Your task to perform on an android device: change alarm snooze length Image 0: 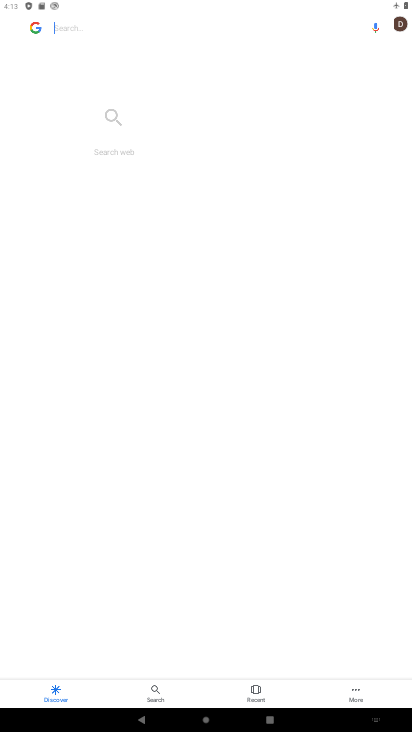
Step 0: press home button
Your task to perform on an android device: change alarm snooze length Image 1: 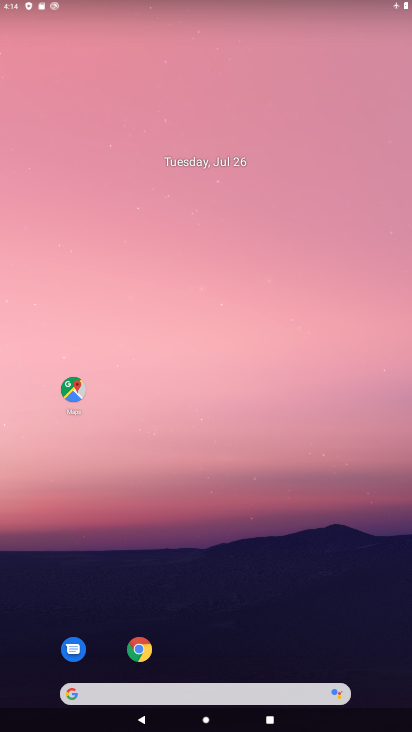
Step 1: drag from (215, 668) to (218, 171)
Your task to perform on an android device: change alarm snooze length Image 2: 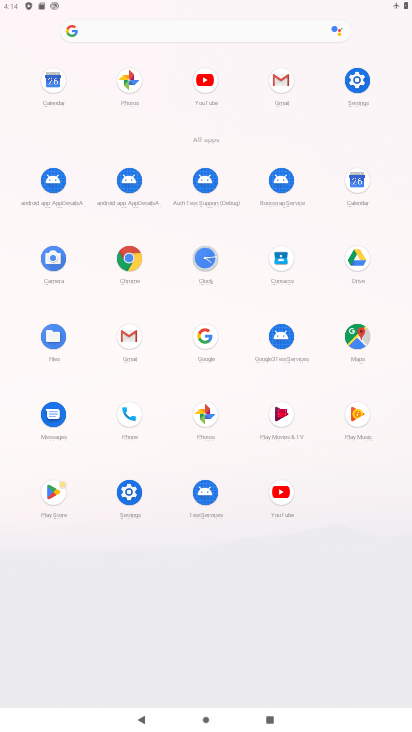
Step 2: click (213, 259)
Your task to perform on an android device: change alarm snooze length Image 3: 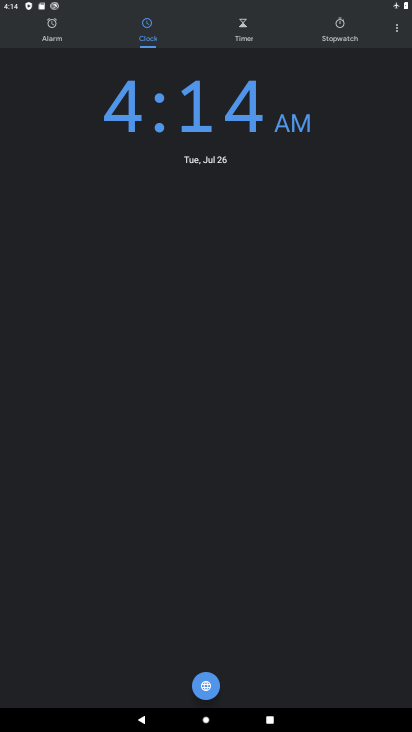
Step 3: click (399, 32)
Your task to perform on an android device: change alarm snooze length Image 4: 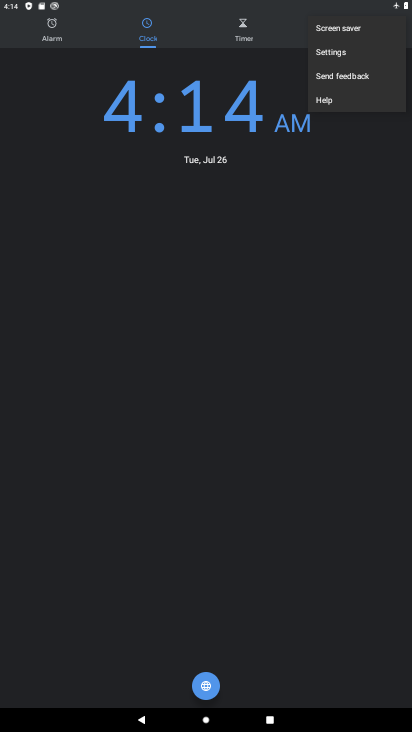
Step 4: click (352, 59)
Your task to perform on an android device: change alarm snooze length Image 5: 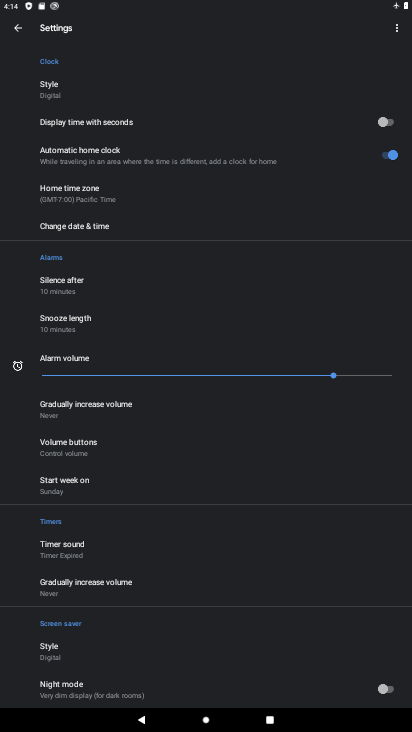
Step 5: click (54, 334)
Your task to perform on an android device: change alarm snooze length Image 6: 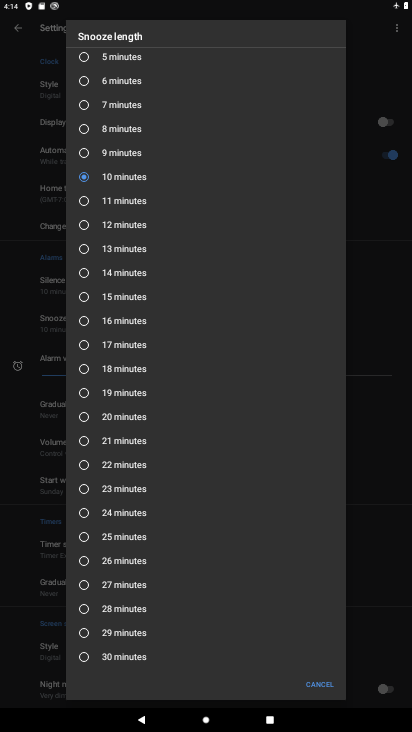
Step 6: click (139, 328)
Your task to perform on an android device: change alarm snooze length Image 7: 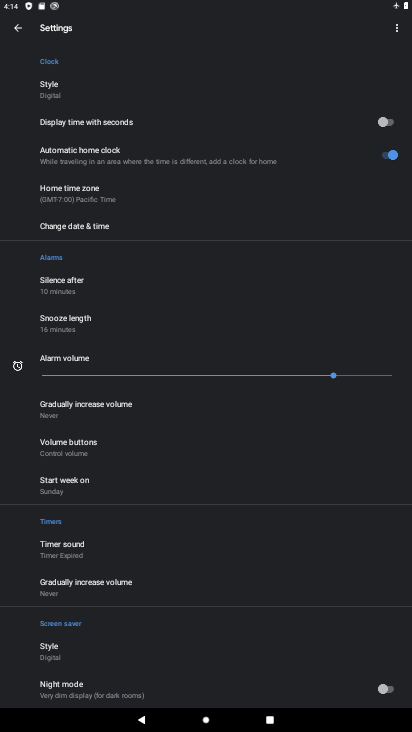
Step 7: task complete